Your task to perform on an android device: Open Wikipedia Image 0: 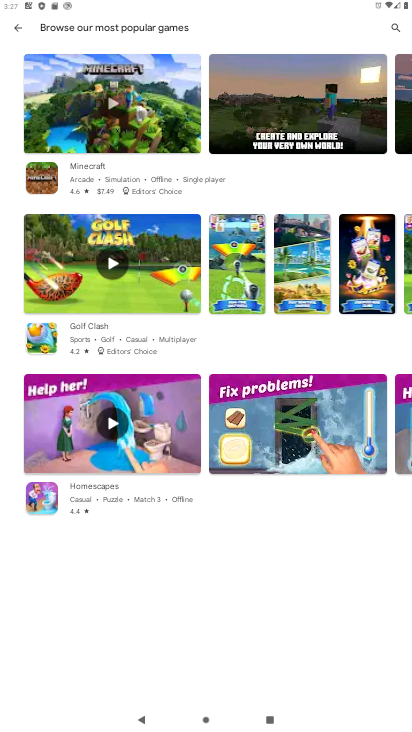
Step 0: press home button
Your task to perform on an android device: Open Wikipedia Image 1: 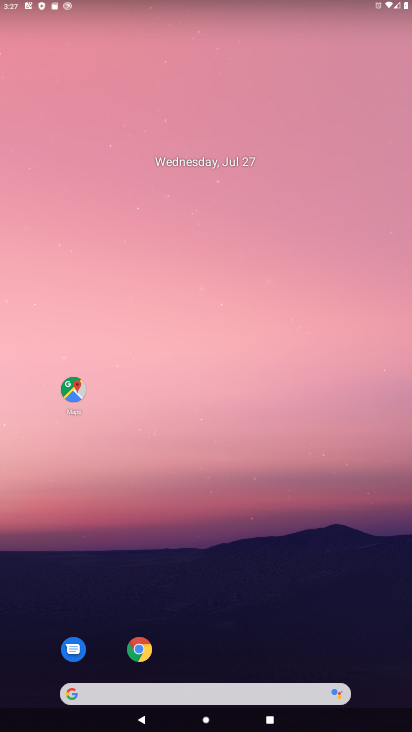
Step 1: click (137, 651)
Your task to perform on an android device: Open Wikipedia Image 2: 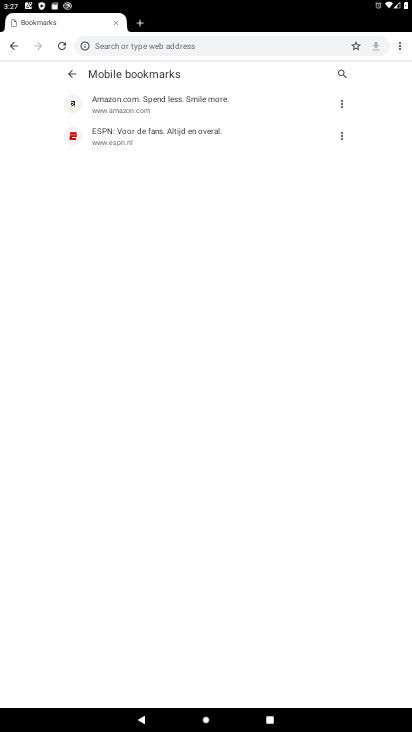
Step 2: click (132, 46)
Your task to perform on an android device: Open Wikipedia Image 3: 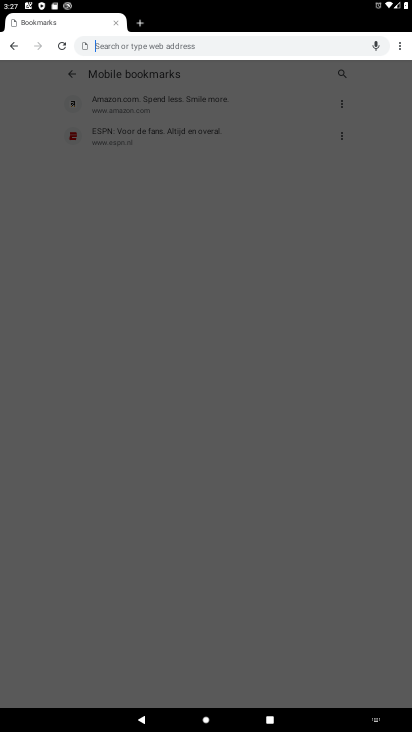
Step 3: type "wikipedia"
Your task to perform on an android device: Open Wikipedia Image 4: 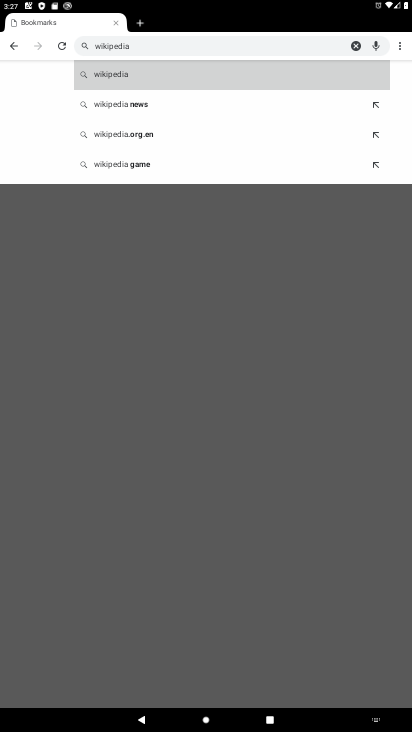
Step 4: click (119, 76)
Your task to perform on an android device: Open Wikipedia Image 5: 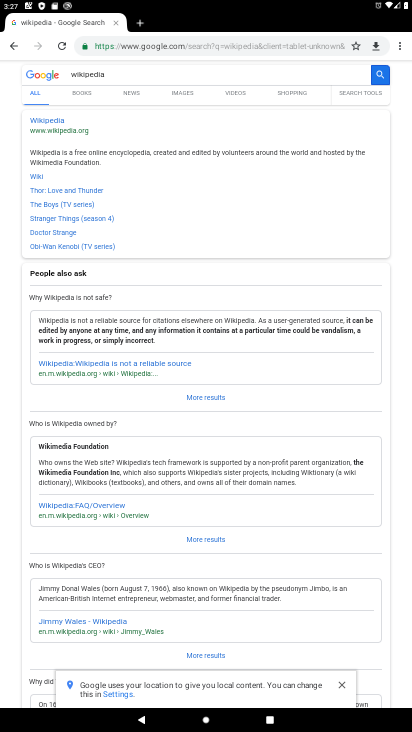
Step 5: click (48, 123)
Your task to perform on an android device: Open Wikipedia Image 6: 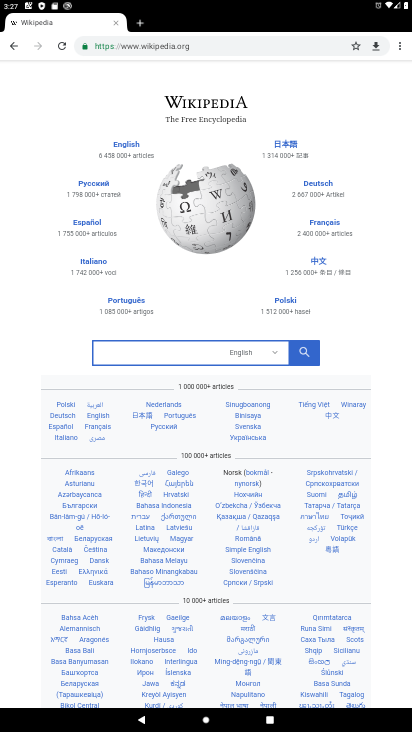
Step 6: task complete